Your task to perform on an android device: Search for Italian restaurants on Maps Image 0: 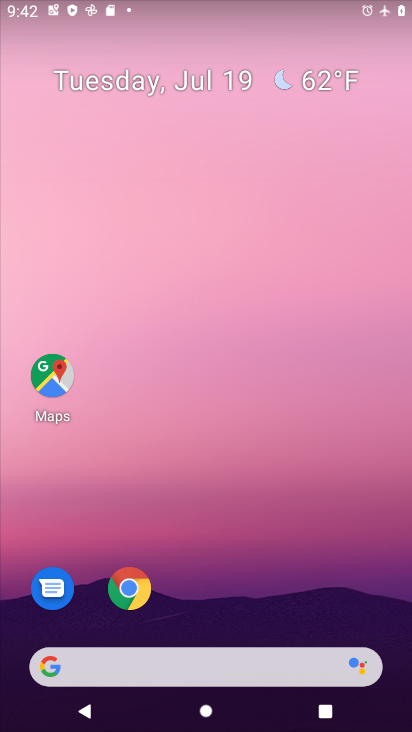
Step 0: drag from (314, 572) to (343, 1)
Your task to perform on an android device: Search for Italian restaurants on Maps Image 1: 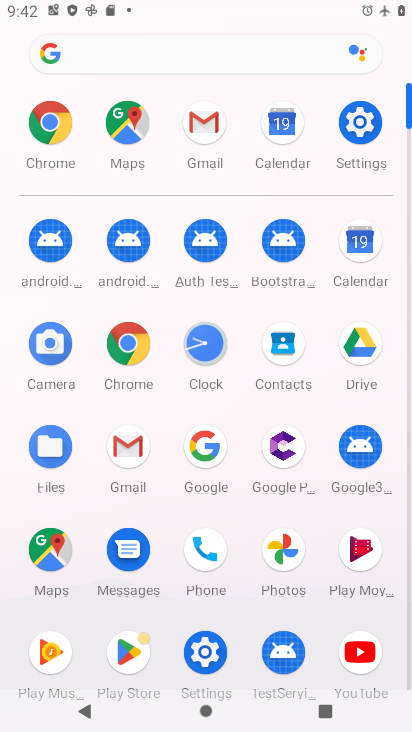
Step 1: click (44, 551)
Your task to perform on an android device: Search for Italian restaurants on Maps Image 2: 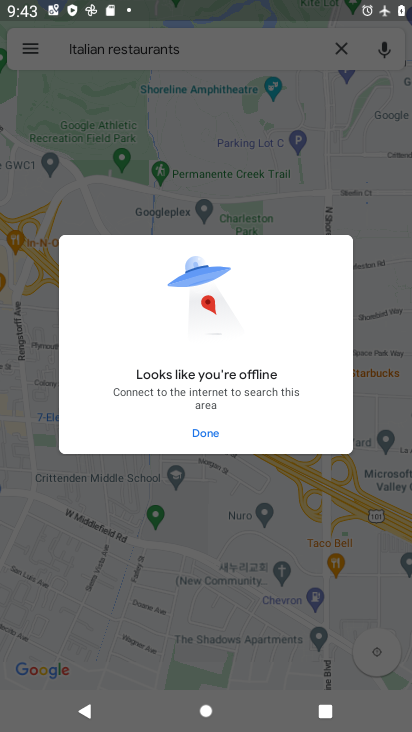
Step 2: task complete